Your task to perform on an android device: Open calendar and show me the second week of next month Image 0: 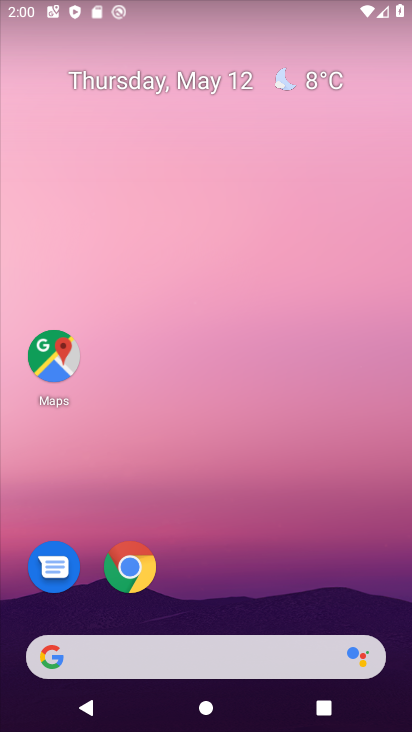
Step 0: click (209, 97)
Your task to perform on an android device: Open calendar and show me the second week of next month Image 1: 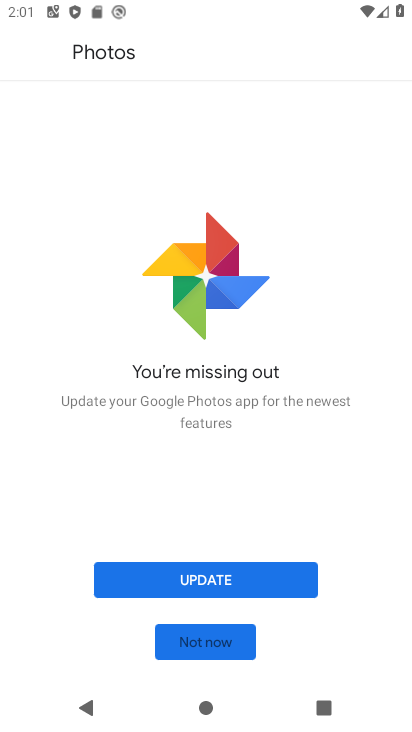
Step 1: press home button
Your task to perform on an android device: Open calendar and show me the second week of next month Image 2: 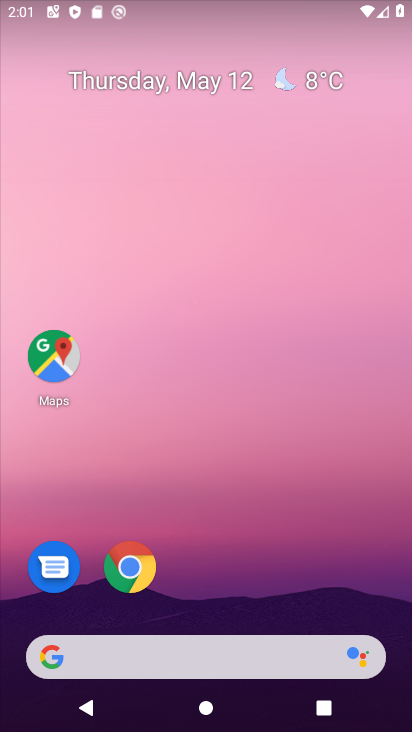
Step 2: drag from (208, 612) to (279, 65)
Your task to perform on an android device: Open calendar and show me the second week of next month Image 3: 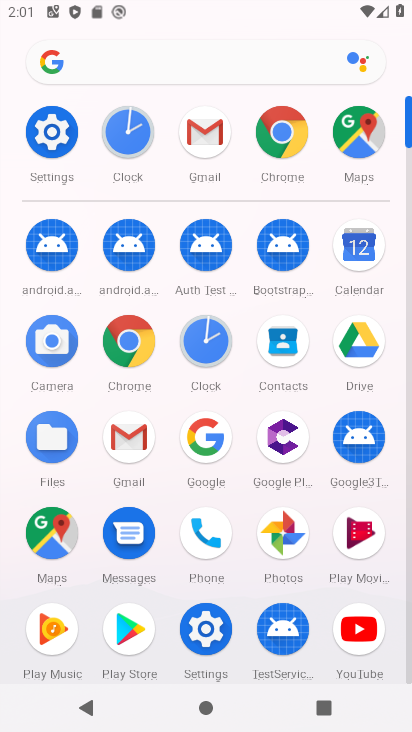
Step 3: click (362, 238)
Your task to perform on an android device: Open calendar and show me the second week of next month Image 4: 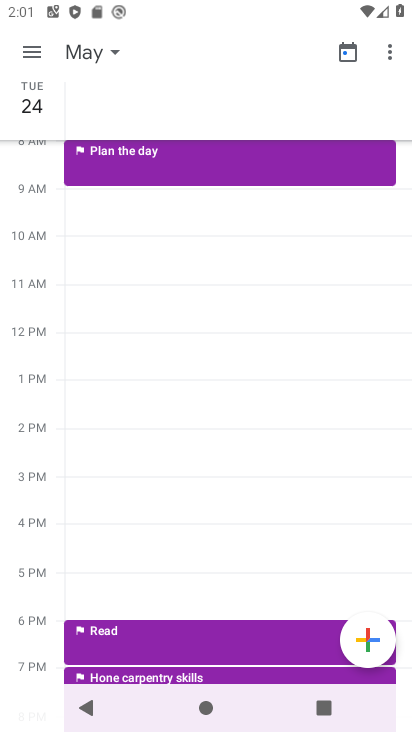
Step 4: click (27, 49)
Your task to perform on an android device: Open calendar and show me the second week of next month Image 5: 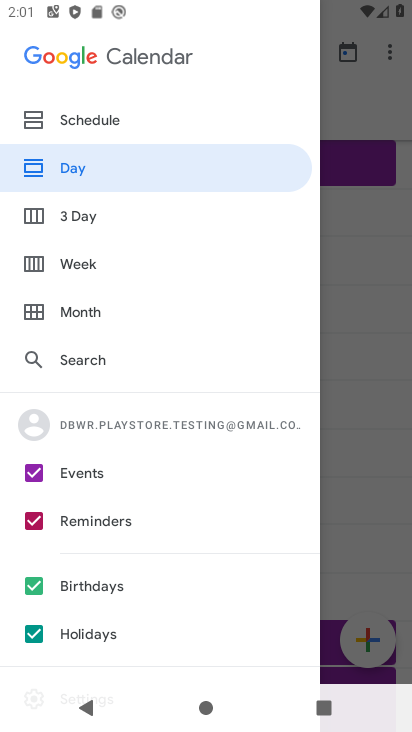
Step 5: click (75, 260)
Your task to perform on an android device: Open calendar and show me the second week of next month Image 6: 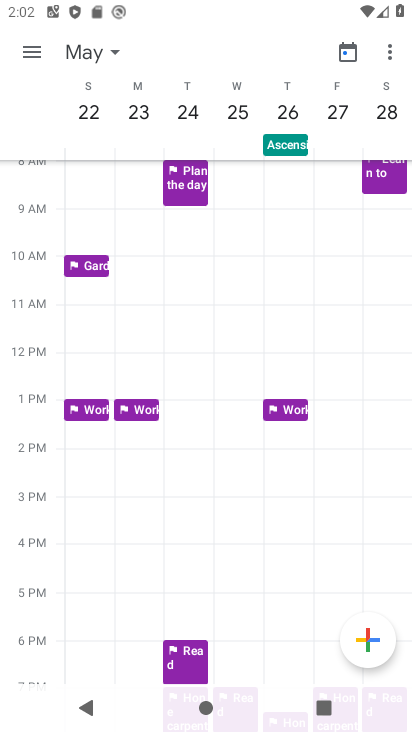
Step 6: drag from (374, 105) to (1, 115)
Your task to perform on an android device: Open calendar and show me the second week of next month Image 7: 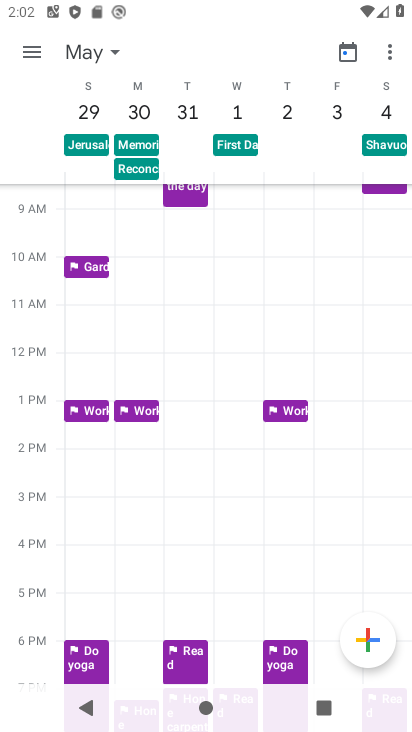
Step 7: drag from (386, 106) to (11, 128)
Your task to perform on an android device: Open calendar and show me the second week of next month Image 8: 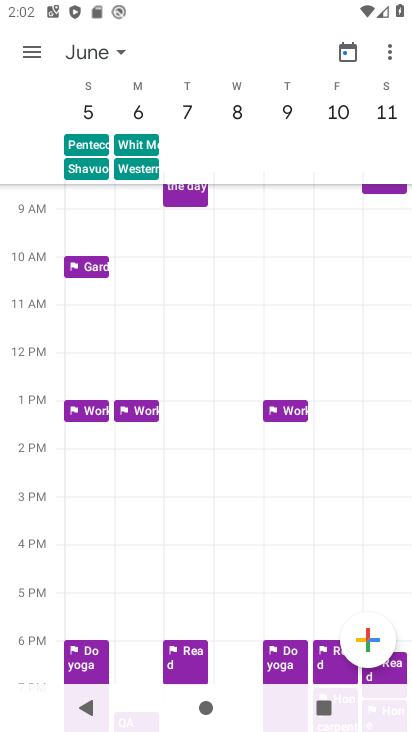
Step 8: drag from (370, 107) to (12, 120)
Your task to perform on an android device: Open calendar and show me the second week of next month Image 9: 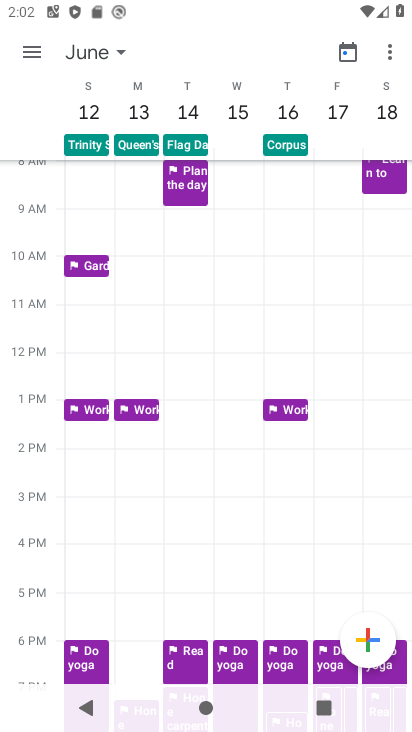
Step 9: click (84, 104)
Your task to perform on an android device: Open calendar and show me the second week of next month Image 10: 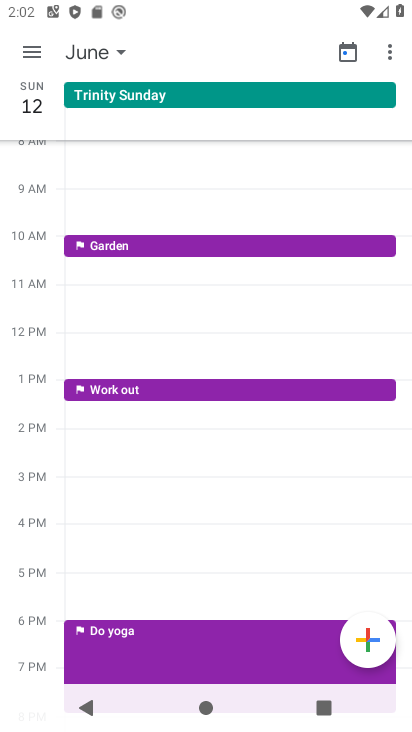
Step 10: click (53, 117)
Your task to perform on an android device: Open calendar and show me the second week of next month Image 11: 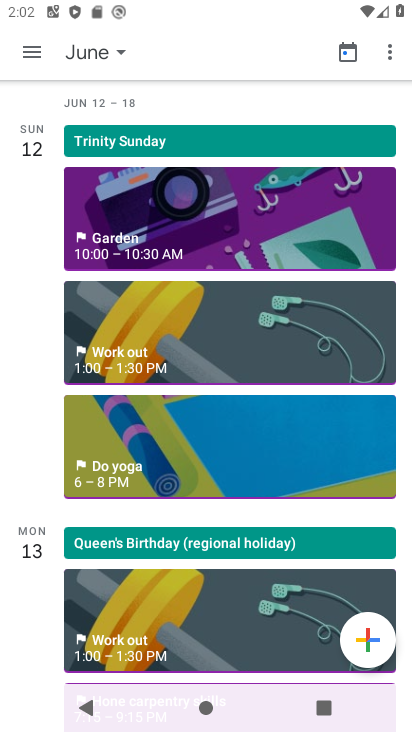
Step 11: task complete